Your task to perform on an android device: Open Google Chrome and click the shortcut for Amazon.com Image 0: 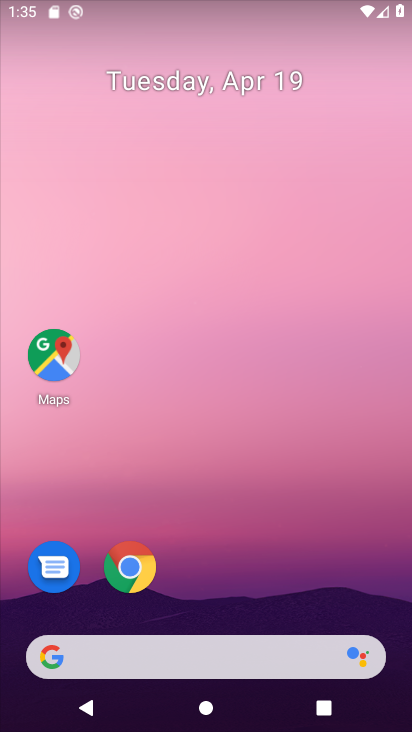
Step 0: click (132, 567)
Your task to perform on an android device: Open Google Chrome and click the shortcut for Amazon.com Image 1: 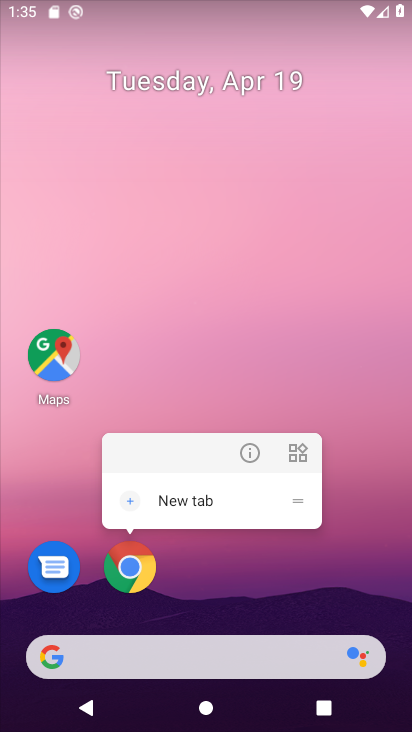
Step 1: click (132, 566)
Your task to perform on an android device: Open Google Chrome and click the shortcut for Amazon.com Image 2: 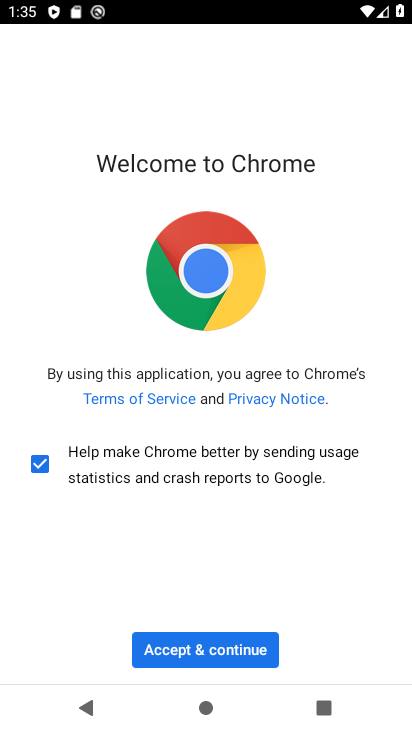
Step 2: click (221, 636)
Your task to perform on an android device: Open Google Chrome and click the shortcut for Amazon.com Image 3: 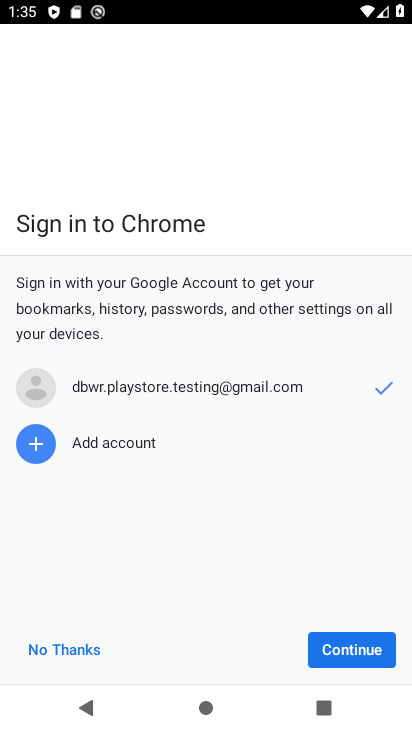
Step 3: click (340, 649)
Your task to perform on an android device: Open Google Chrome and click the shortcut for Amazon.com Image 4: 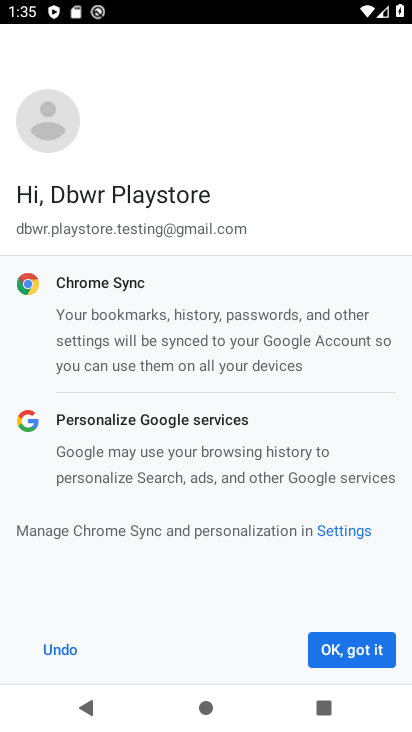
Step 4: click (340, 649)
Your task to perform on an android device: Open Google Chrome and click the shortcut for Amazon.com Image 5: 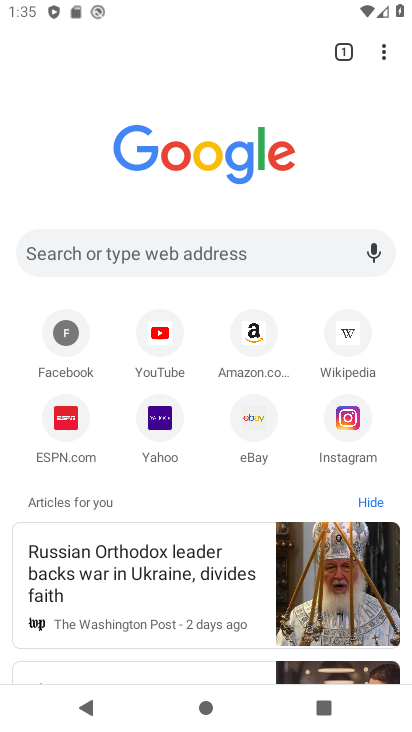
Step 5: click (249, 329)
Your task to perform on an android device: Open Google Chrome and click the shortcut for Amazon.com Image 6: 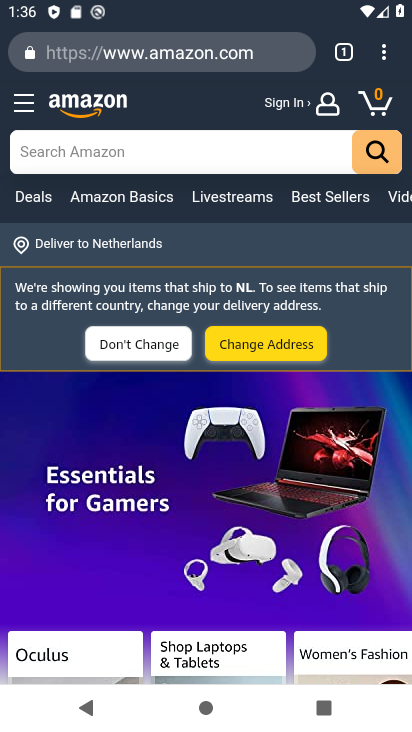
Step 6: task complete